Your task to perform on an android device: Search for "amazon basics triple a" on newegg.com, select the first entry, and add it to the cart. Image 0: 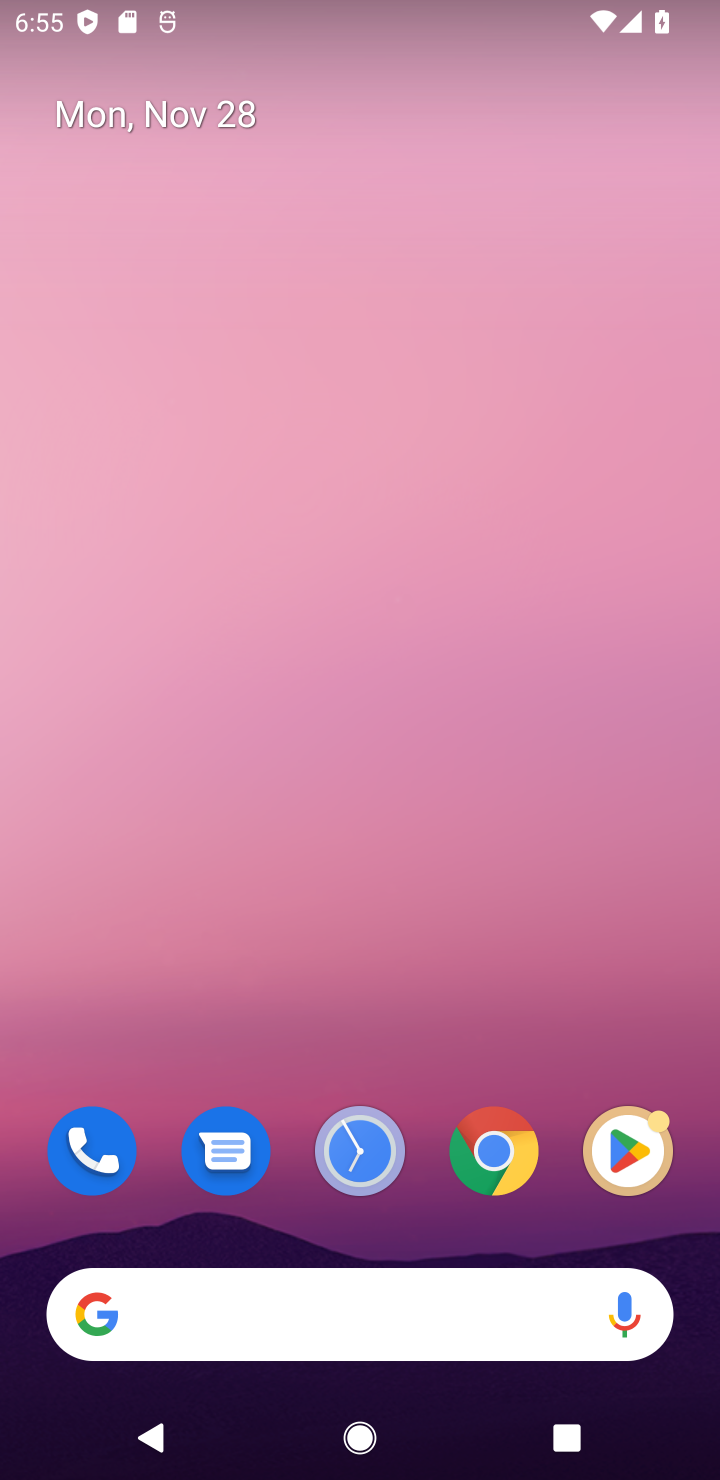
Step 0: click (308, 1334)
Your task to perform on an android device: Search for "amazon basics triple a" on newegg.com, select the first entry, and add it to the cart. Image 1: 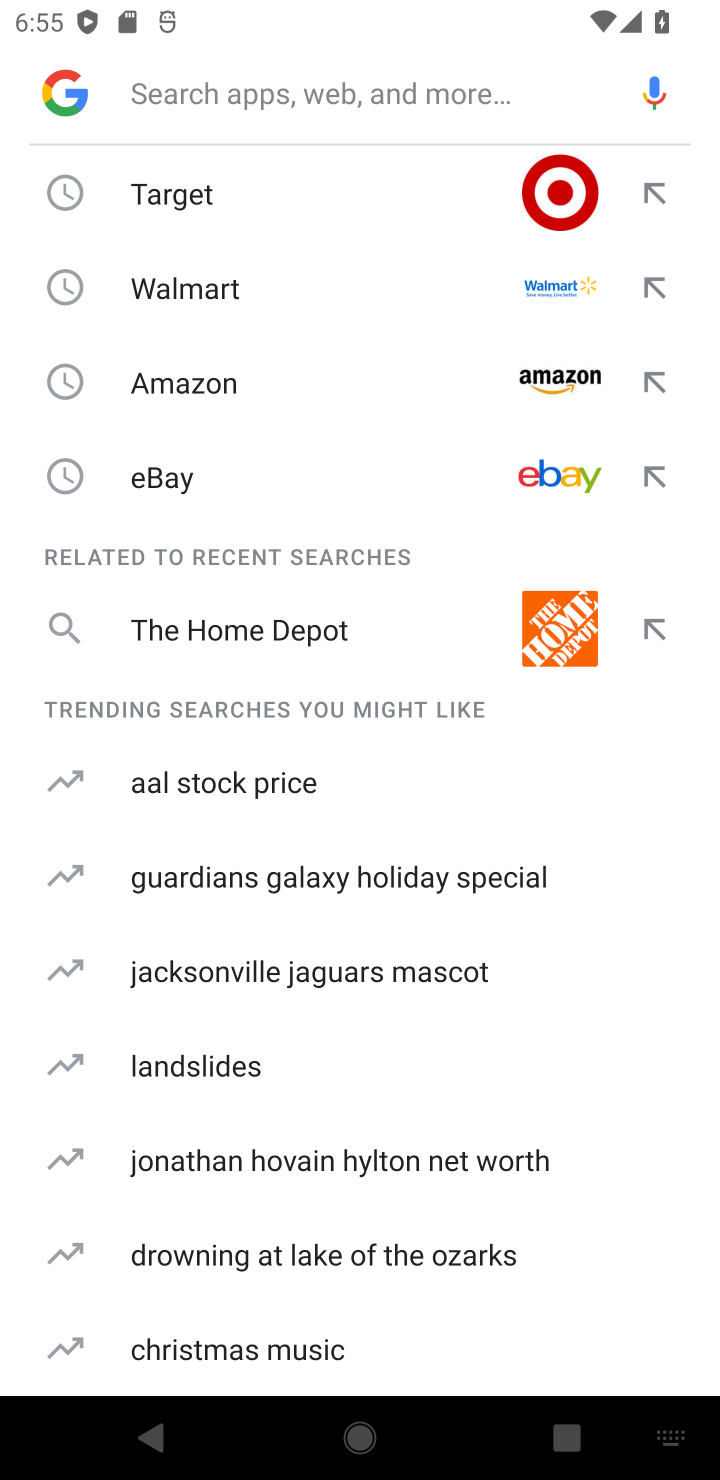
Step 1: type "newegg.com"
Your task to perform on an android device: Search for "amazon basics triple a" on newegg.com, select the first entry, and add it to the cart. Image 2: 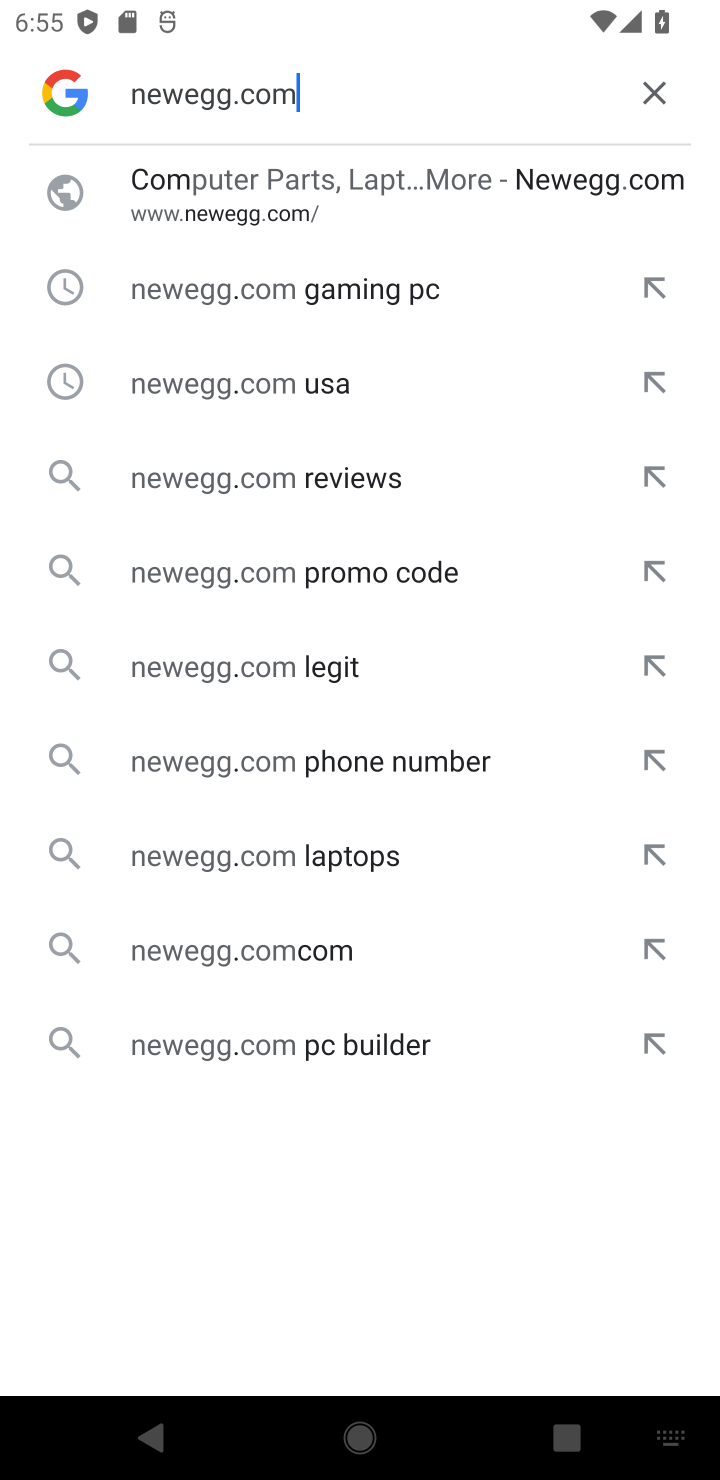
Step 2: click (330, 208)
Your task to perform on an android device: Search for "amazon basics triple a" on newegg.com, select the first entry, and add it to the cart. Image 3: 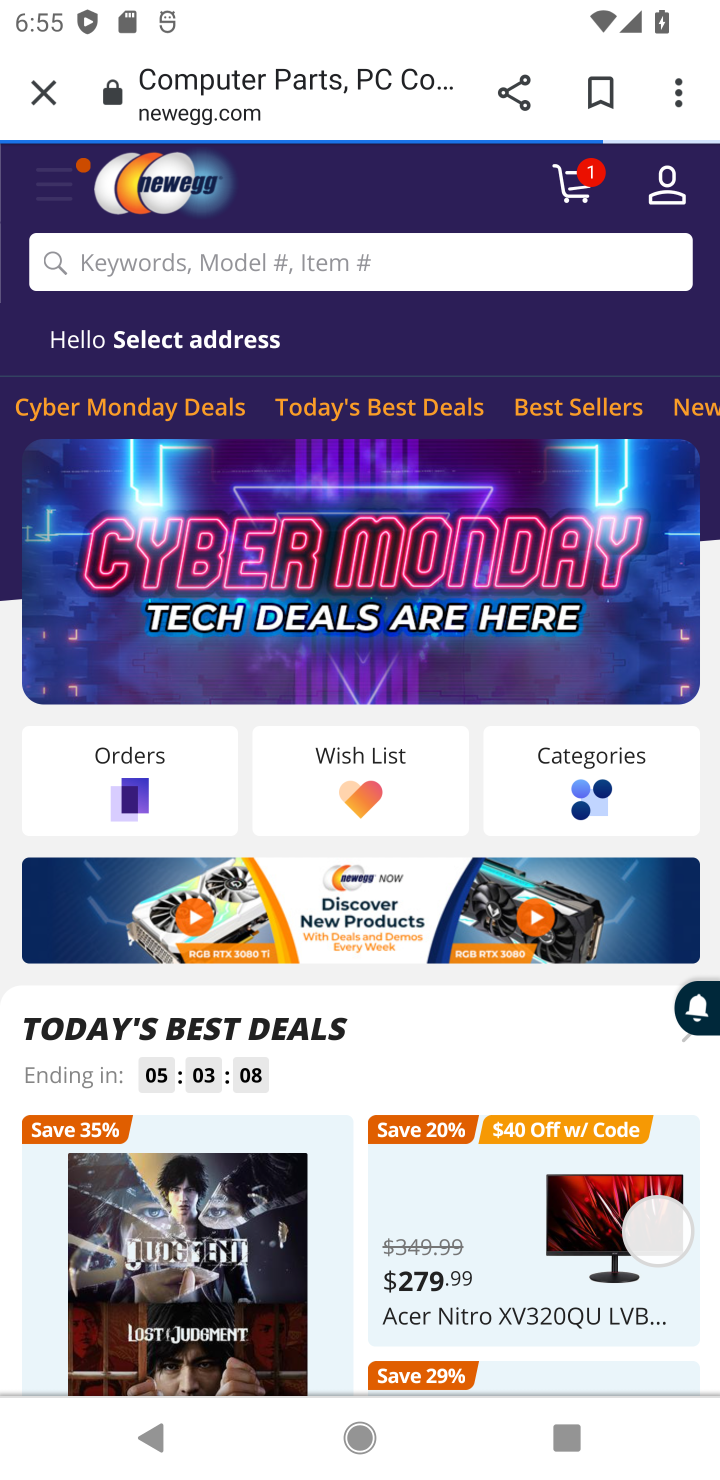
Step 3: click (355, 273)
Your task to perform on an android device: Search for "amazon basics triple a" on newegg.com, select the first entry, and add it to the cart. Image 4: 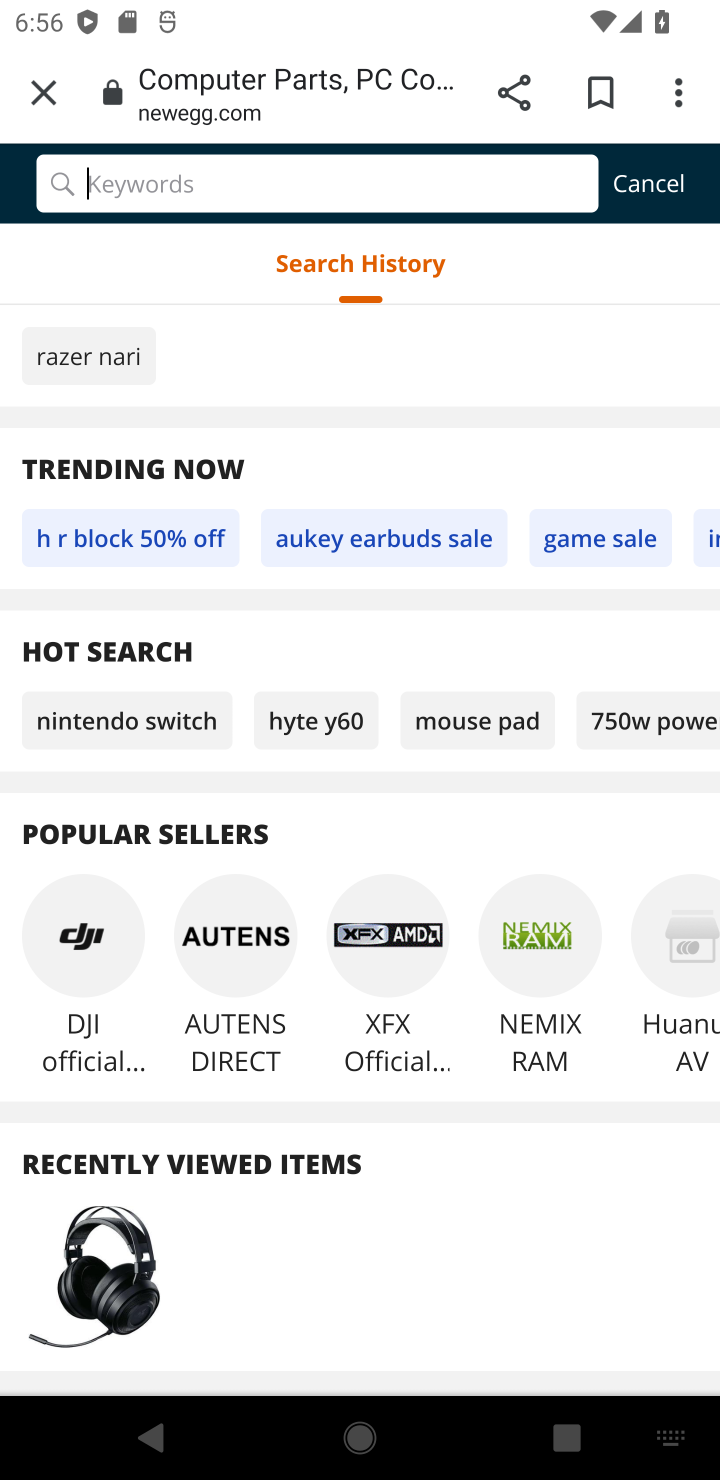
Step 4: type "amazon basics"
Your task to perform on an android device: Search for "amazon basics triple a" on newegg.com, select the first entry, and add it to the cart. Image 5: 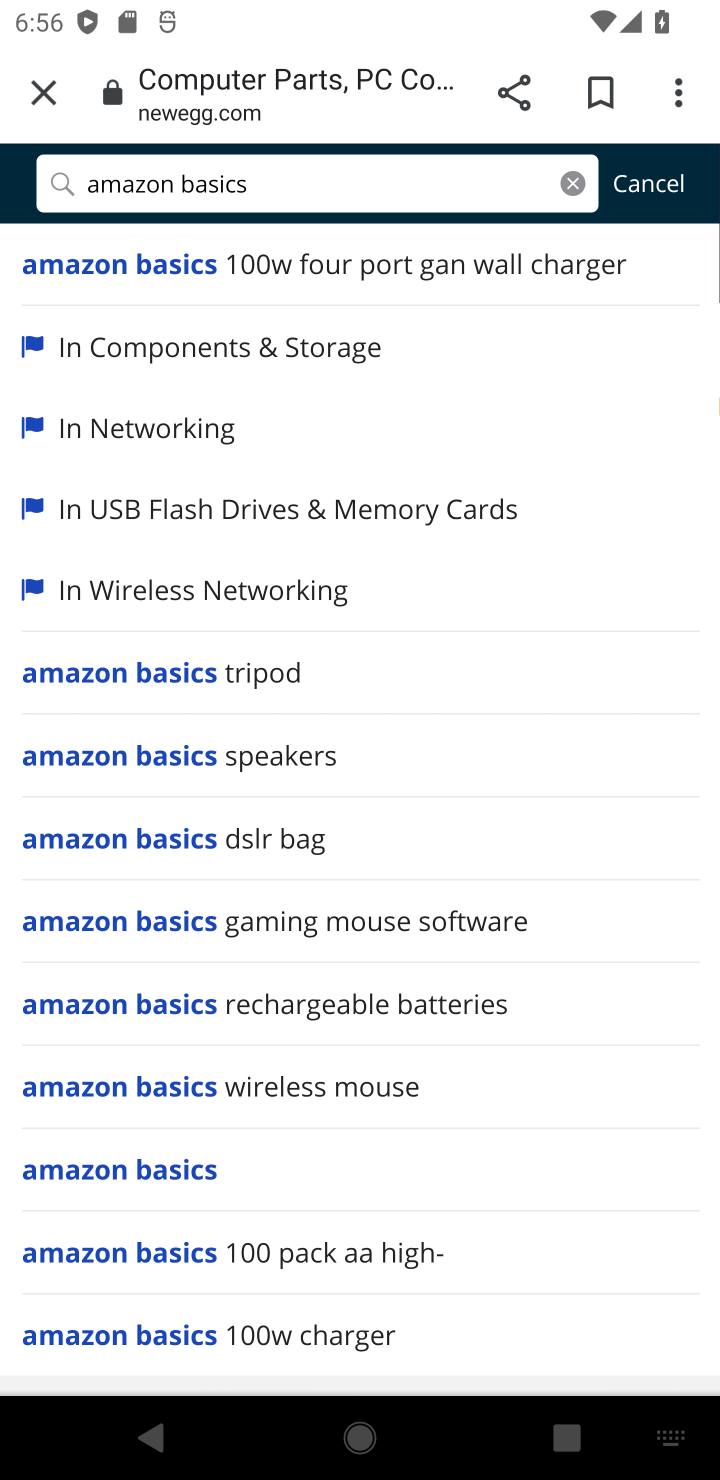
Step 5: click (334, 294)
Your task to perform on an android device: Search for "amazon basics triple a" on newegg.com, select the first entry, and add it to the cart. Image 6: 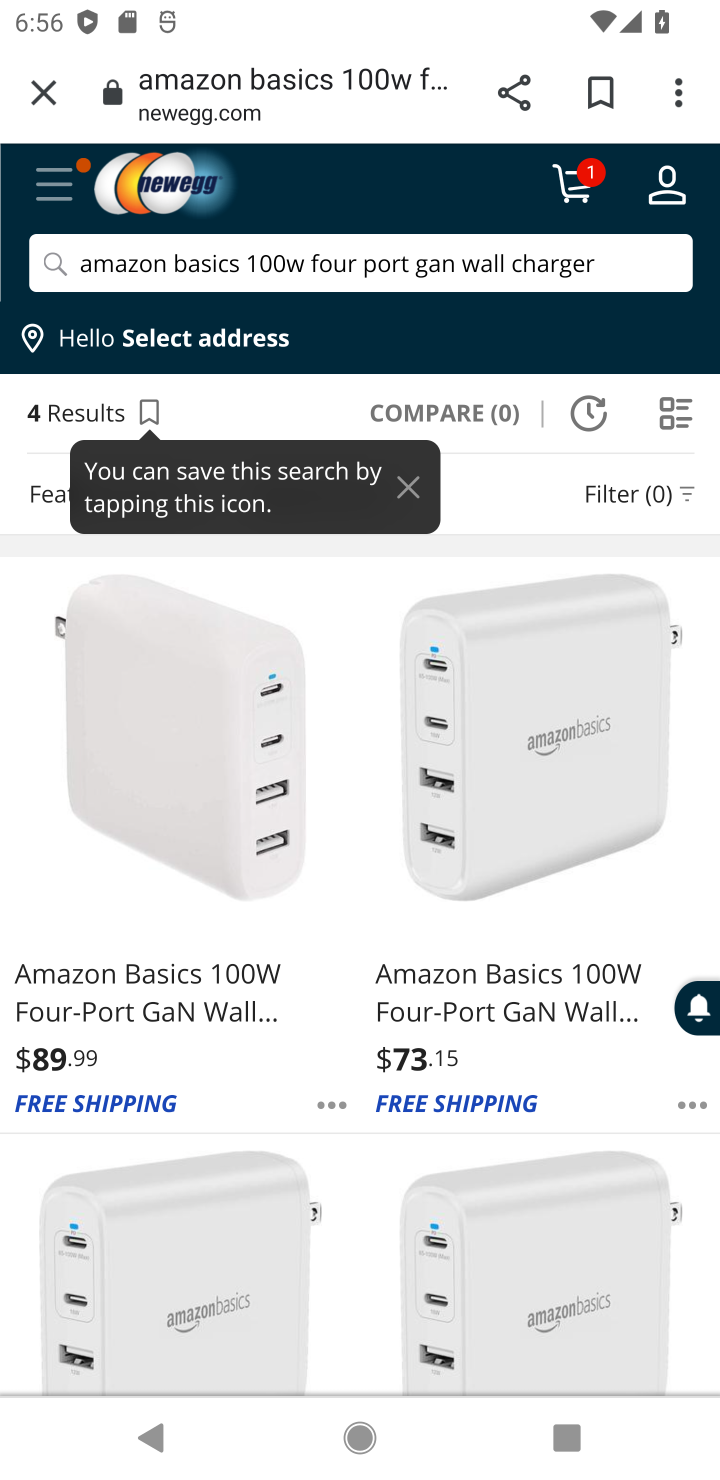
Step 6: click (209, 913)
Your task to perform on an android device: Search for "amazon basics triple a" on newegg.com, select the first entry, and add it to the cart. Image 7: 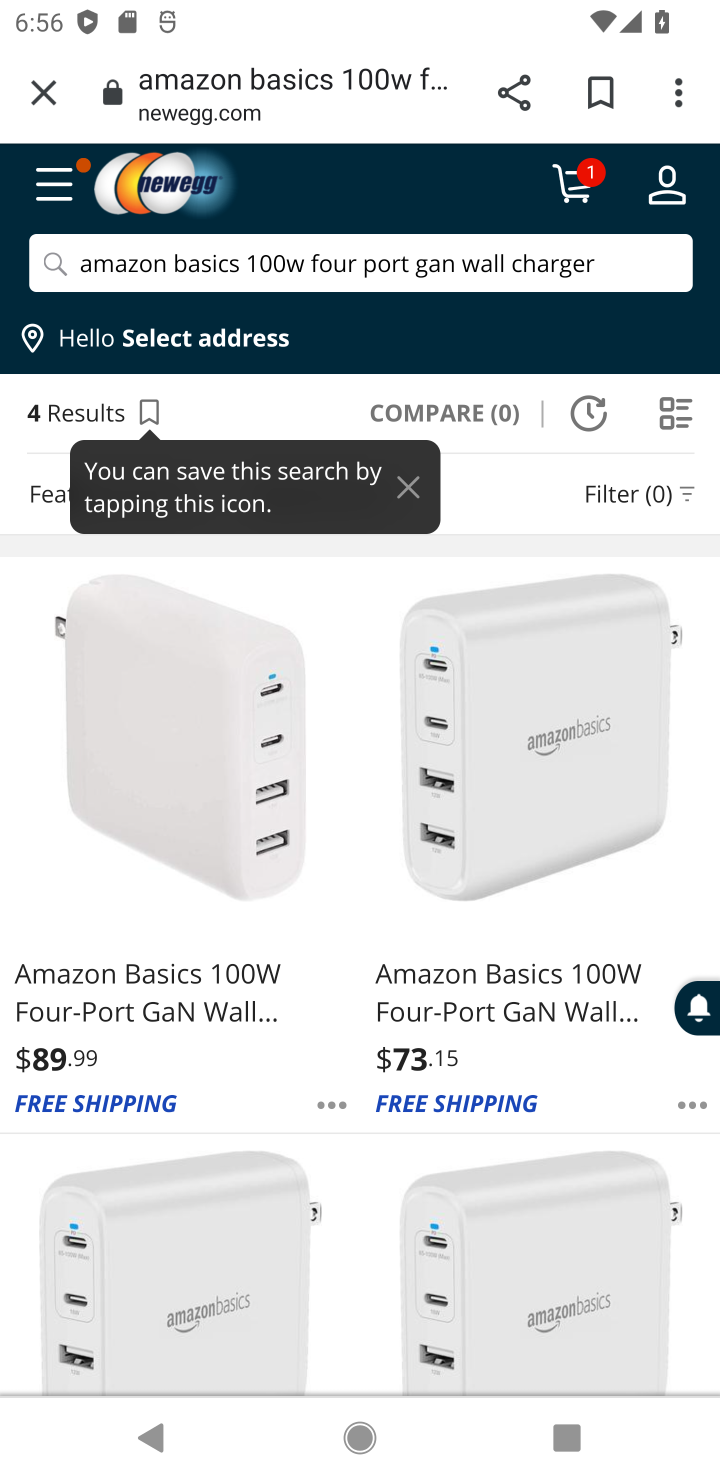
Step 7: task complete